Your task to perform on an android device: empty trash in the gmail app Image 0: 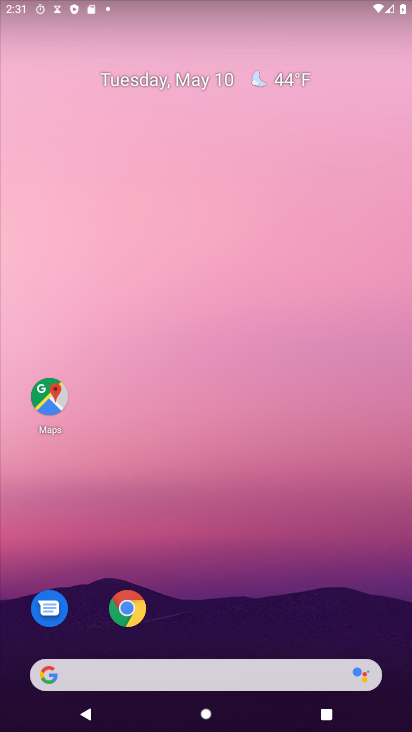
Step 0: drag from (347, 626) to (376, 114)
Your task to perform on an android device: empty trash in the gmail app Image 1: 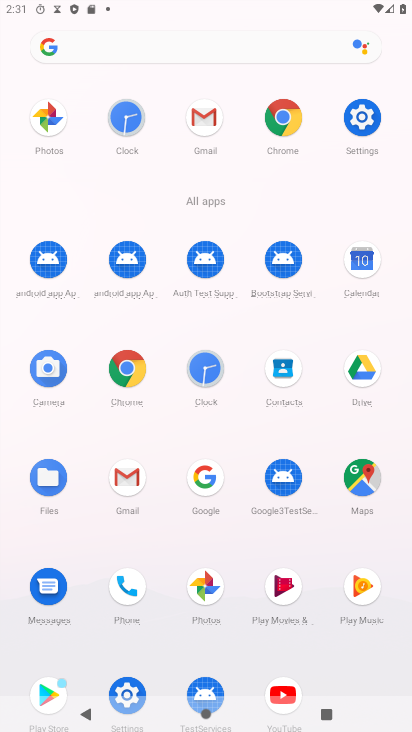
Step 1: click (201, 127)
Your task to perform on an android device: empty trash in the gmail app Image 2: 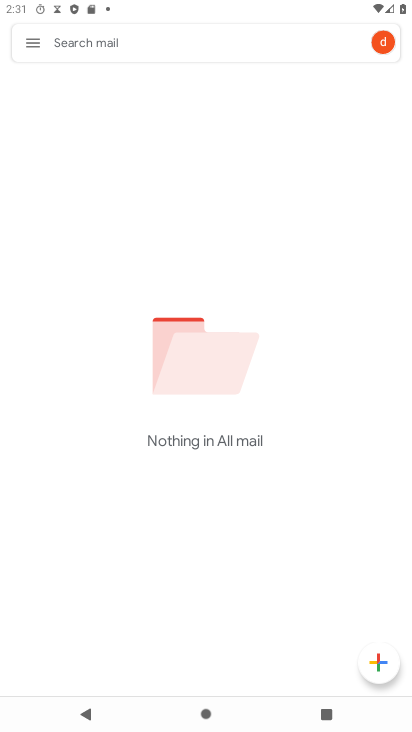
Step 2: click (30, 48)
Your task to perform on an android device: empty trash in the gmail app Image 3: 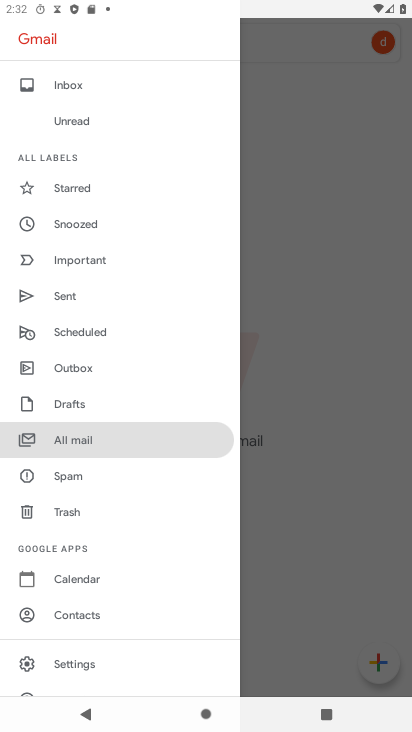
Step 3: click (82, 511)
Your task to perform on an android device: empty trash in the gmail app Image 4: 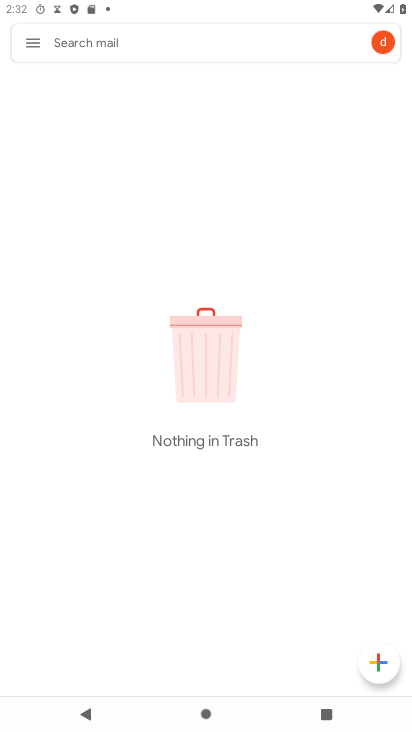
Step 4: task complete